Your task to perform on an android device: toggle show notifications on the lock screen Image 0: 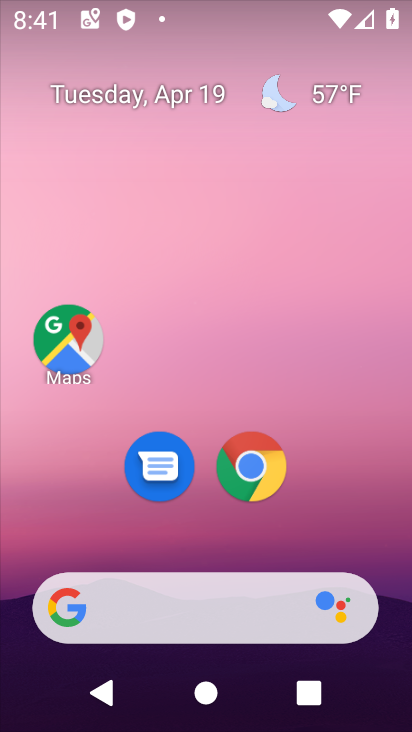
Step 0: drag from (206, 724) to (206, 25)
Your task to perform on an android device: toggle show notifications on the lock screen Image 1: 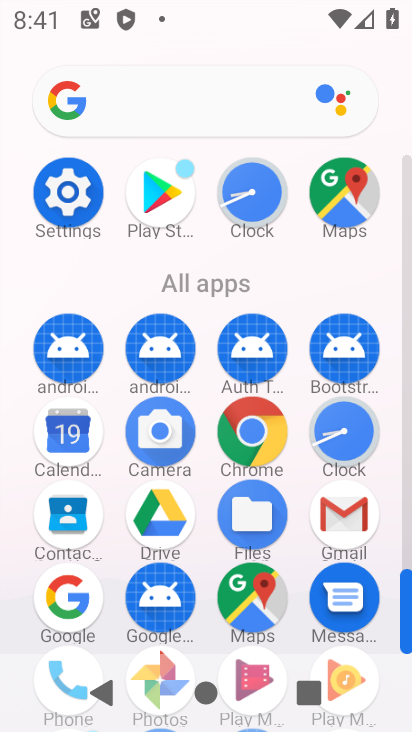
Step 1: click (69, 191)
Your task to perform on an android device: toggle show notifications on the lock screen Image 2: 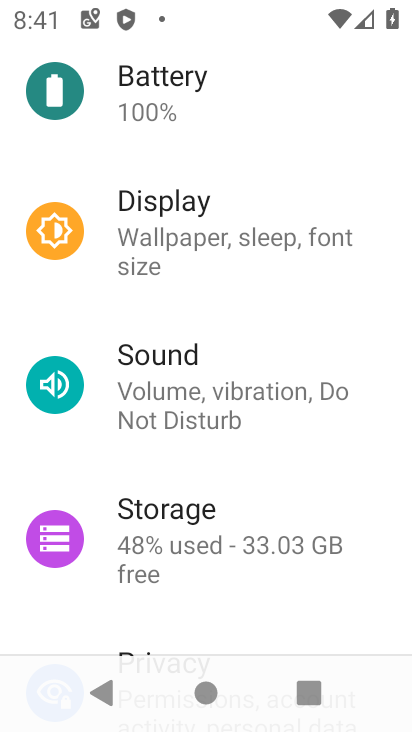
Step 2: drag from (252, 155) to (252, 554)
Your task to perform on an android device: toggle show notifications on the lock screen Image 3: 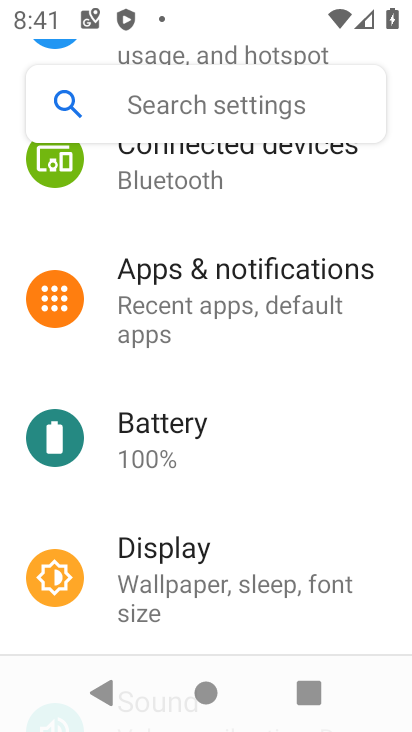
Step 3: click (173, 303)
Your task to perform on an android device: toggle show notifications on the lock screen Image 4: 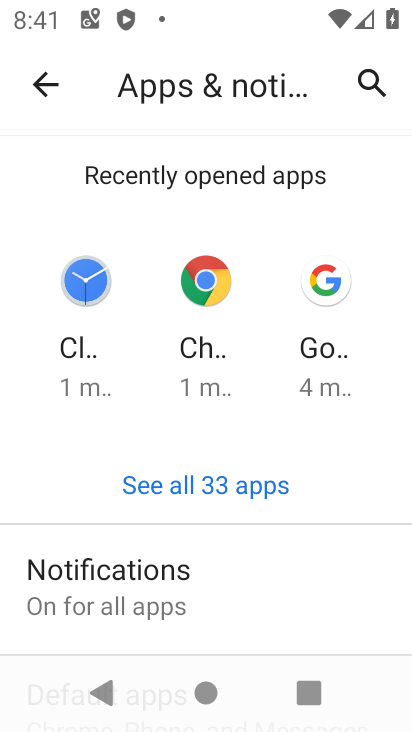
Step 4: click (113, 590)
Your task to perform on an android device: toggle show notifications on the lock screen Image 5: 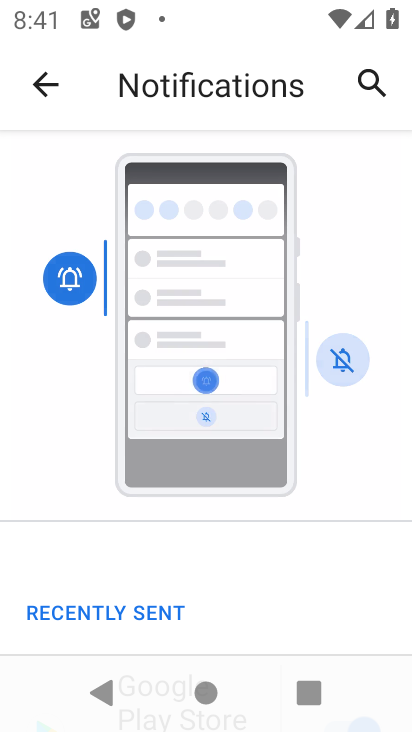
Step 5: drag from (207, 633) to (188, 243)
Your task to perform on an android device: toggle show notifications on the lock screen Image 6: 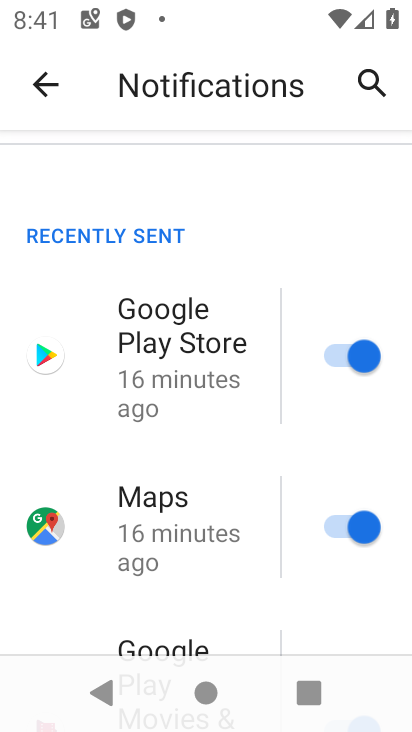
Step 6: drag from (207, 630) to (178, 158)
Your task to perform on an android device: toggle show notifications on the lock screen Image 7: 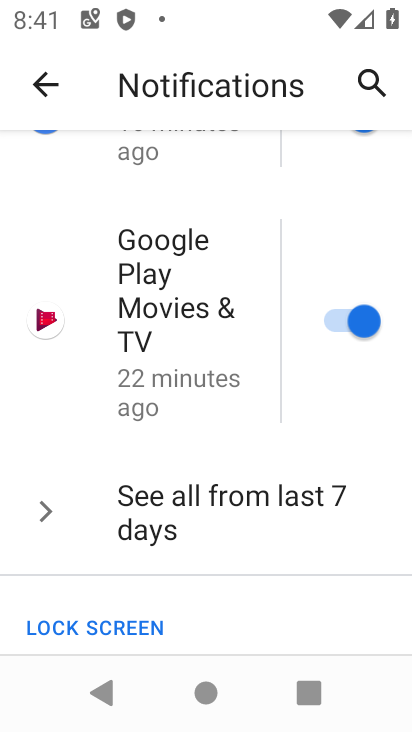
Step 7: drag from (224, 638) to (198, 237)
Your task to perform on an android device: toggle show notifications on the lock screen Image 8: 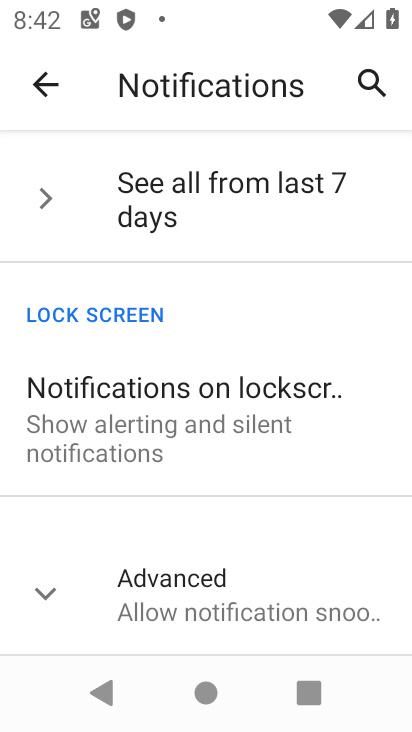
Step 8: click (133, 416)
Your task to perform on an android device: toggle show notifications on the lock screen Image 9: 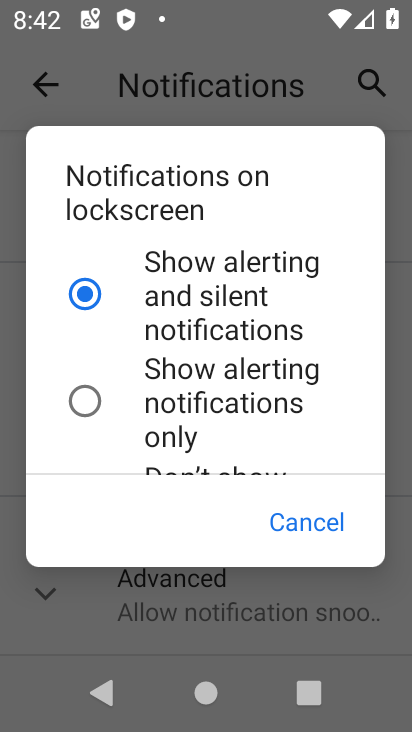
Step 9: click (304, 518)
Your task to perform on an android device: toggle show notifications on the lock screen Image 10: 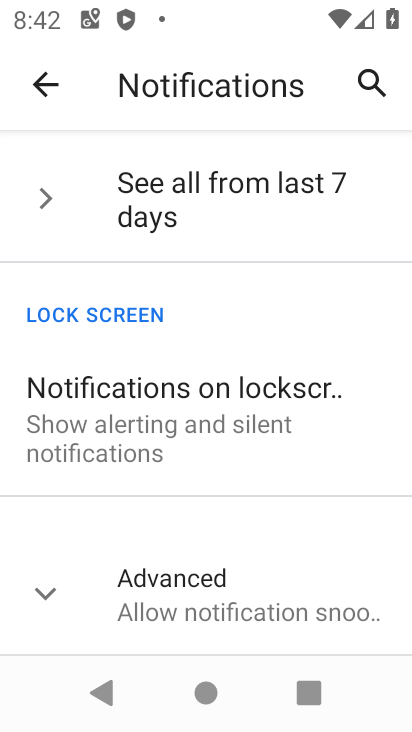
Step 10: task complete